Your task to perform on an android device: Do I have any events today? Image 0: 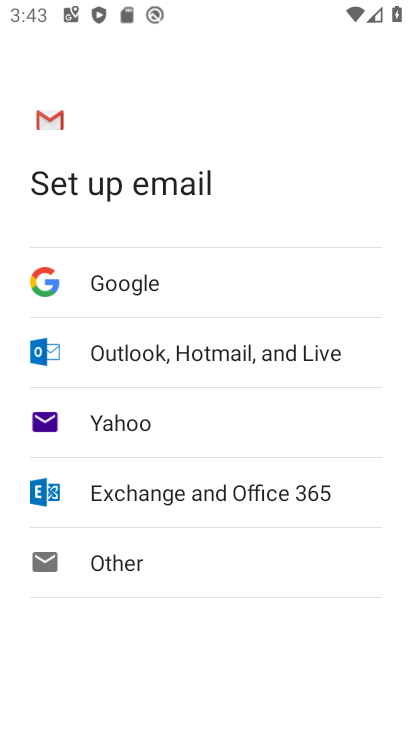
Step 0: press home button
Your task to perform on an android device: Do I have any events today? Image 1: 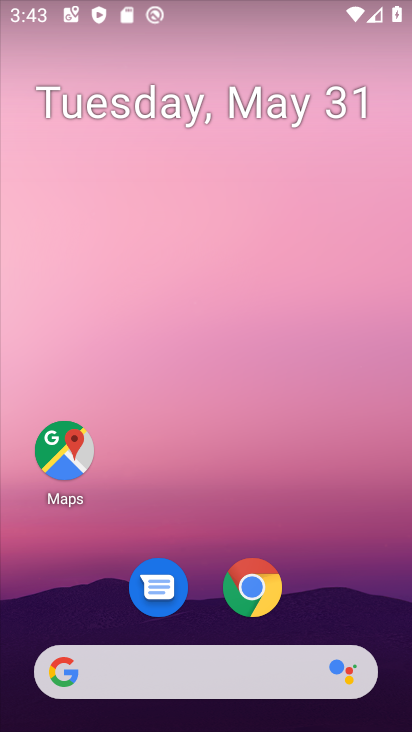
Step 1: drag from (319, 600) to (294, 0)
Your task to perform on an android device: Do I have any events today? Image 2: 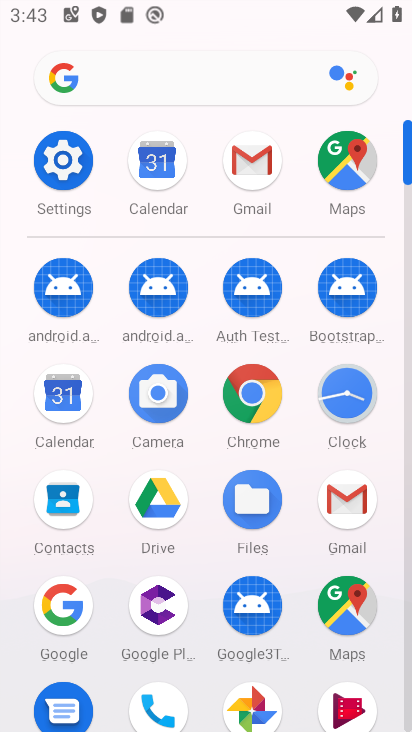
Step 2: click (66, 396)
Your task to perform on an android device: Do I have any events today? Image 3: 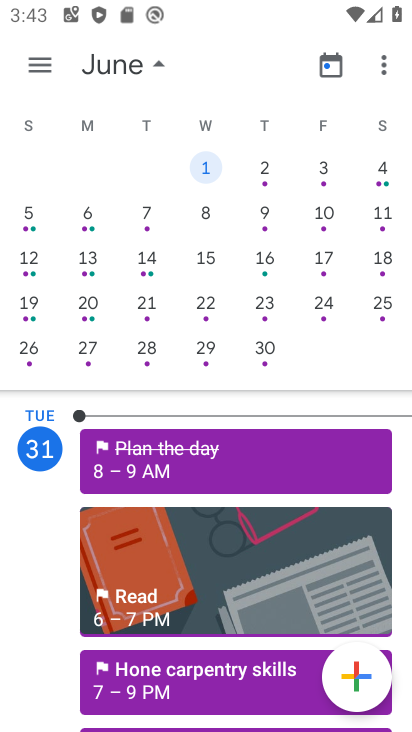
Step 3: drag from (48, 276) to (397, 360)
Your task to perform on an android device: Do I have any events today? Image 4: 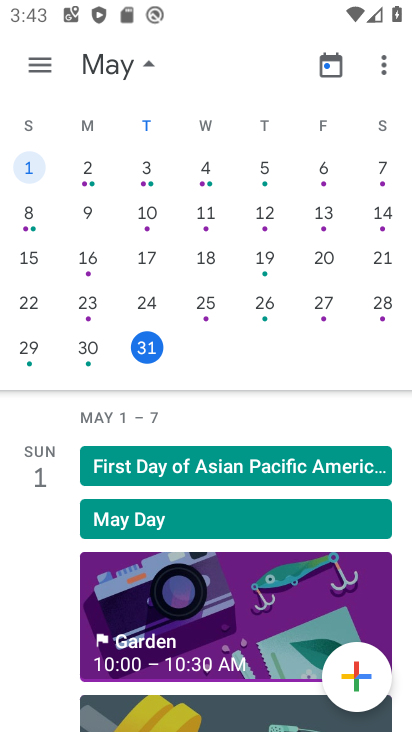
Step 4: click (141, 341)
Your task to perform on an android device: Do I have any events today? Image 5: 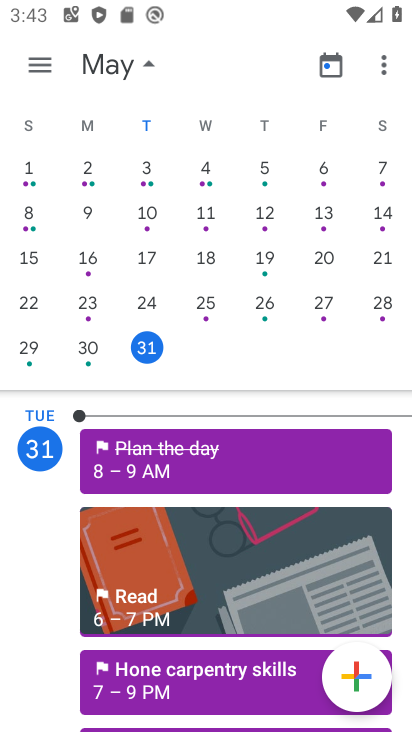
Step 5: task complete